Your task to perform on an android device: Open internet settings Image 0: 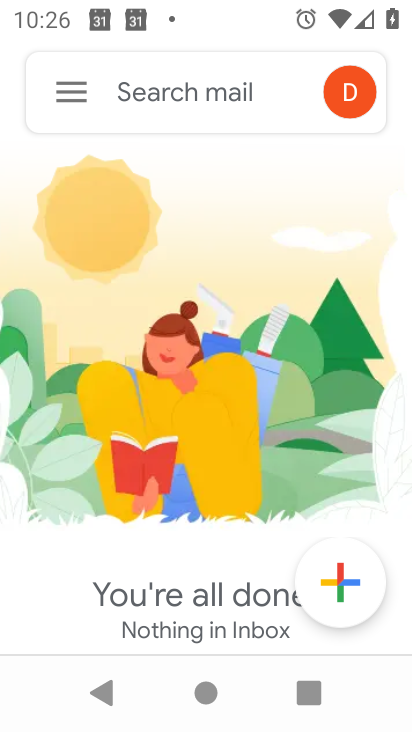
Step 0: press home button
Your task to perform on an android device: Open internet settings Image 1: 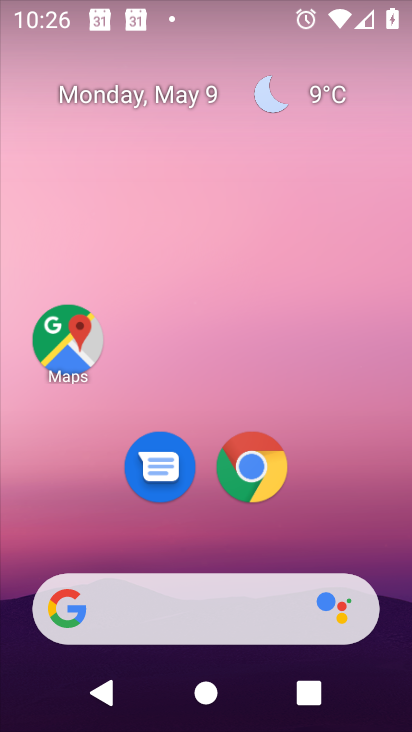
Step 1: drag from (339, 550) to (327, 5)
Your task to perform on an android device: Open internet settings Image 2: 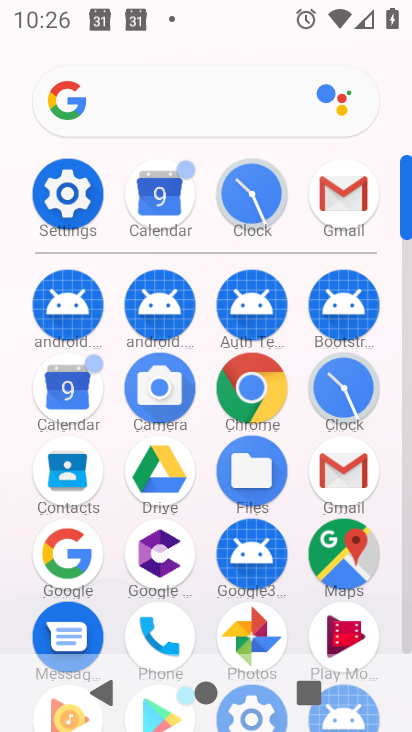
Step 2: click (65, 199)
Your task to perform on an android device: Open internet settings Image 3: 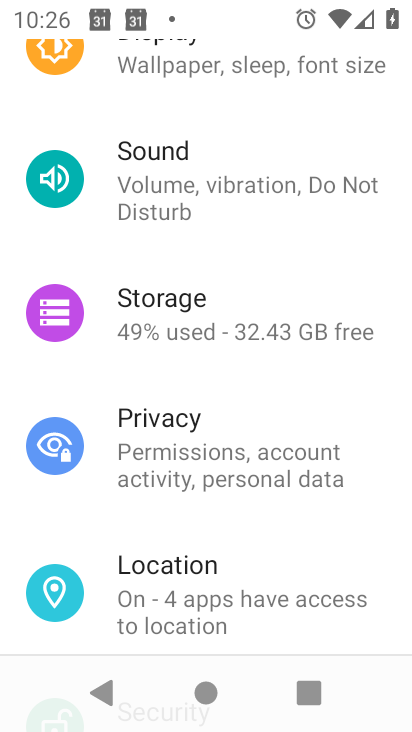
Step 3: drag from (345, 236) to (296, 620)
Your task to perform on an android device: Open internet settings Image 4: 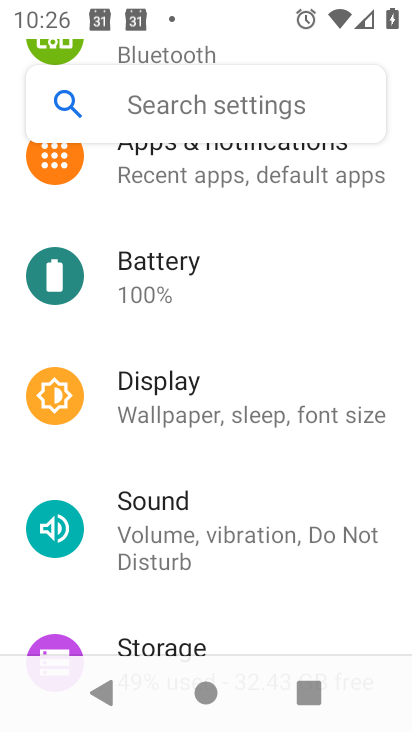
Step 4: drag from (285, 321) to (186, 682)
Your task to perform on an android device: Open internet settings Image 5: 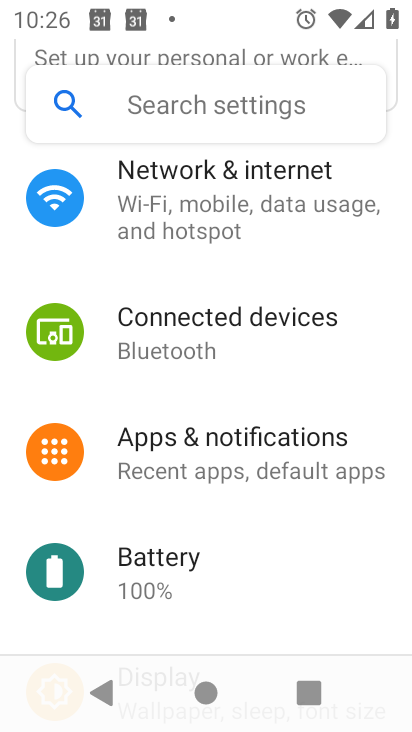
Step 5: drag from (243, 281) to (248, 527)
Your task to perform on an android device: Open internet settings Image 6: 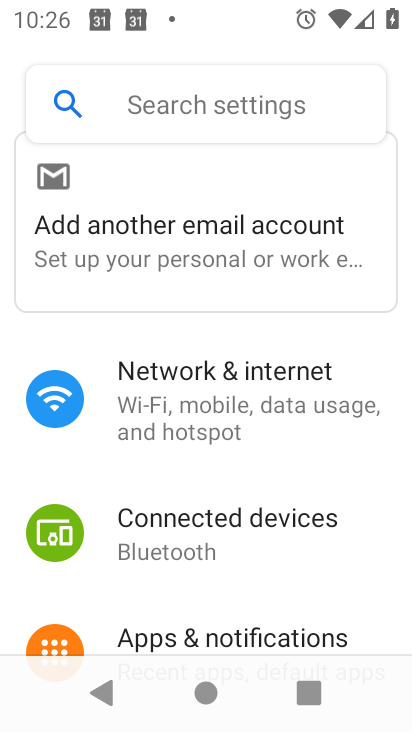
Step 6: click (198, 398)
Your task to perform on an android device: Open internet settings Image 7: 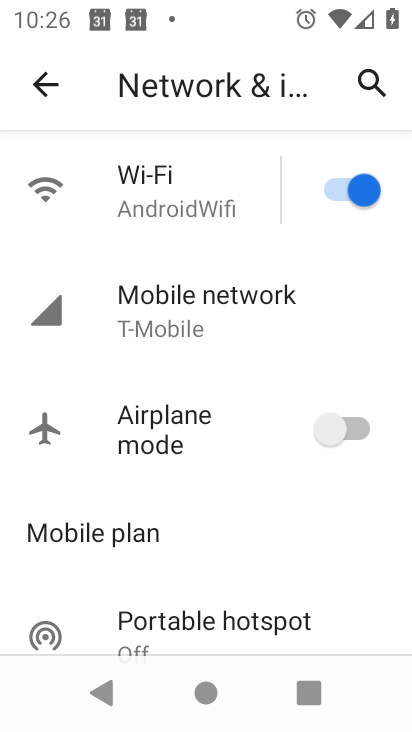
Step 7: task complete